Your task to perform on an android device: Open wifi settings Image 0: 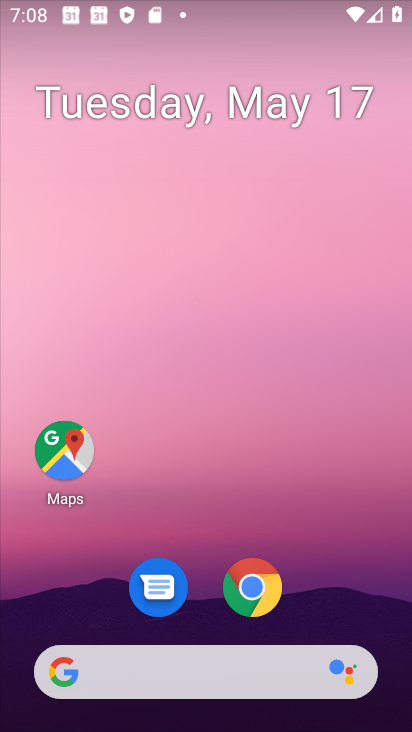
Step 0: drag from (262, 702) to (190, 157)
Your task to perform on an android device: Open wifi settings Image 1: 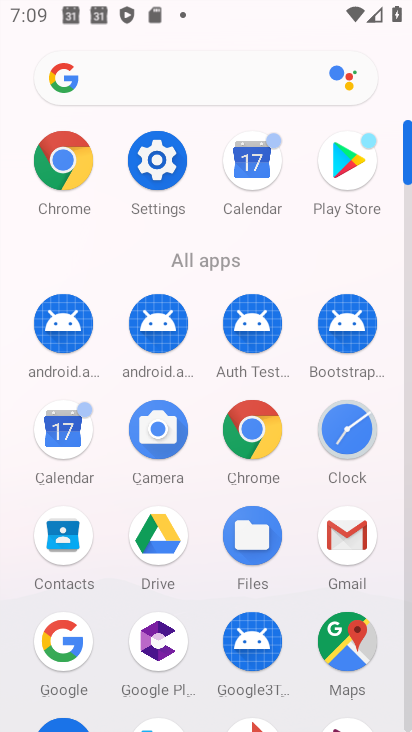
Step 1: click (156, 176)
Your task to perform on an android device: Open wifi settings Image 2: 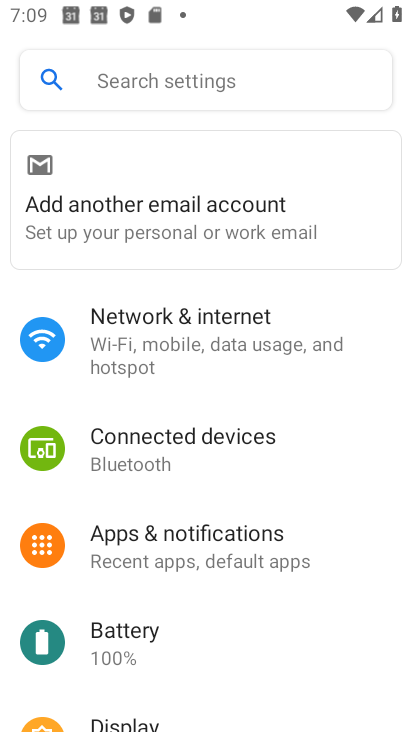
Step 2: click (219, 312)
Your task to perform on an android device: Open wifi settings Image 3: 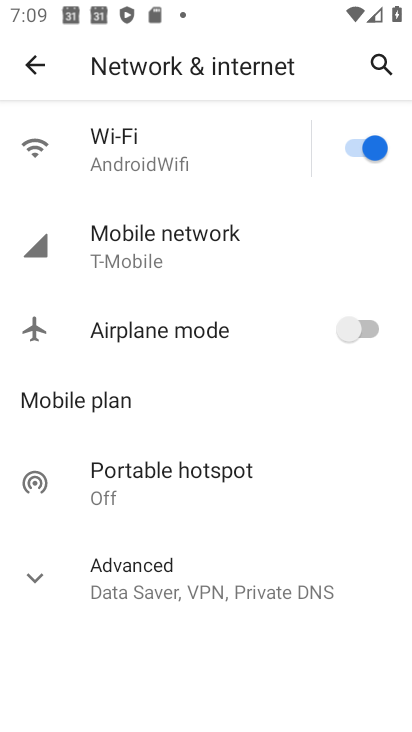
Step 3: click (162, 158)
Your task to perform on an android device: Open wifi settings Image 4: 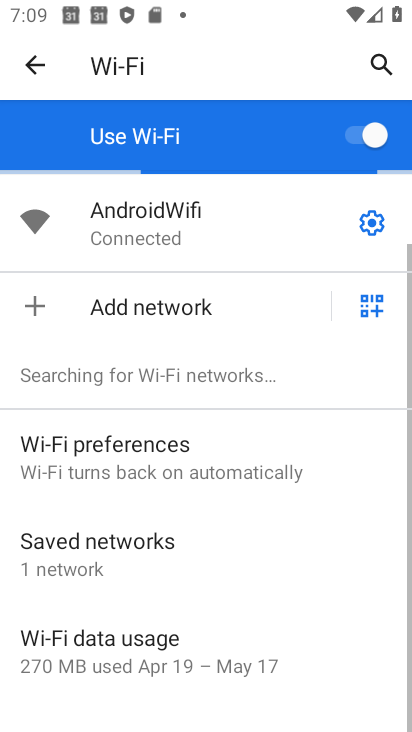
Step 4: task complete